Your task to perform on an android device: Open notification settings Image 0: 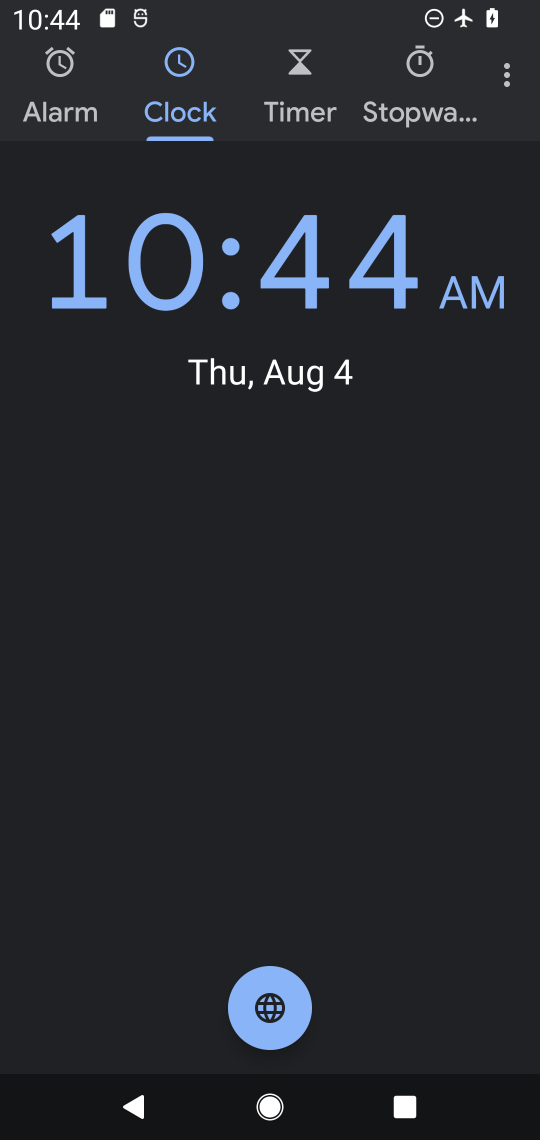
Step 0: press home button
Your task to perform on an android device: Open notification settings Image 1: 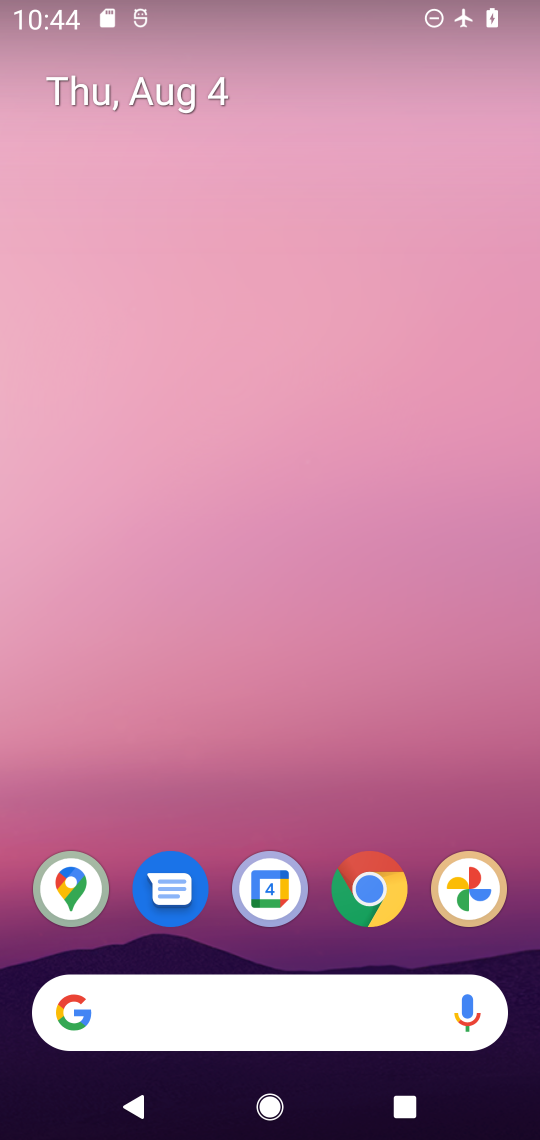
Step 1: drag from (363, 761) to (388, 176)
Your task to perform on an android device: Open notification settings Image 2: 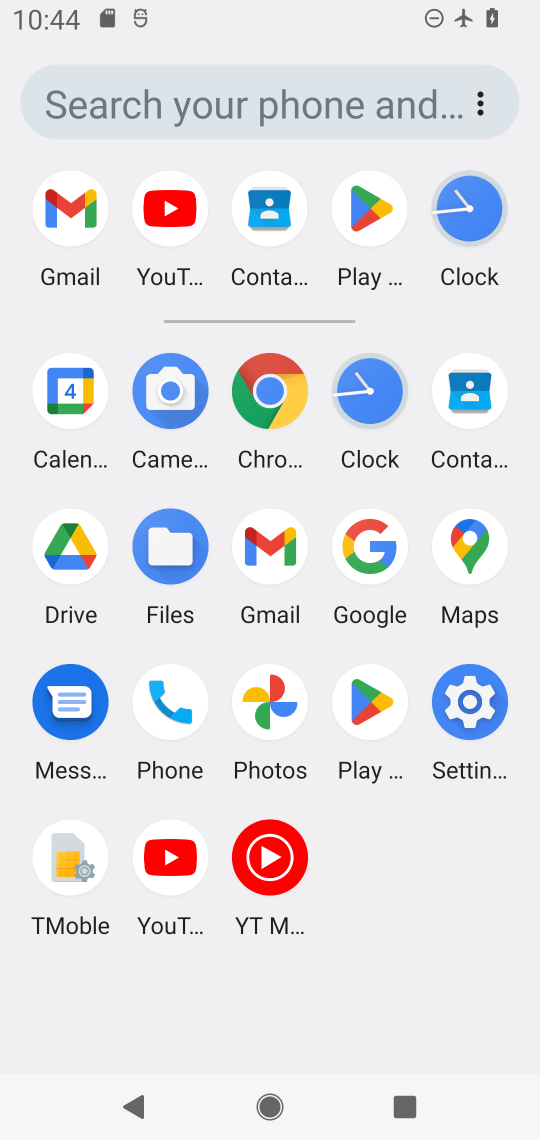
Step 2: click (486, 704)
Your task to perform on an android device: Open notification settings Image 3: 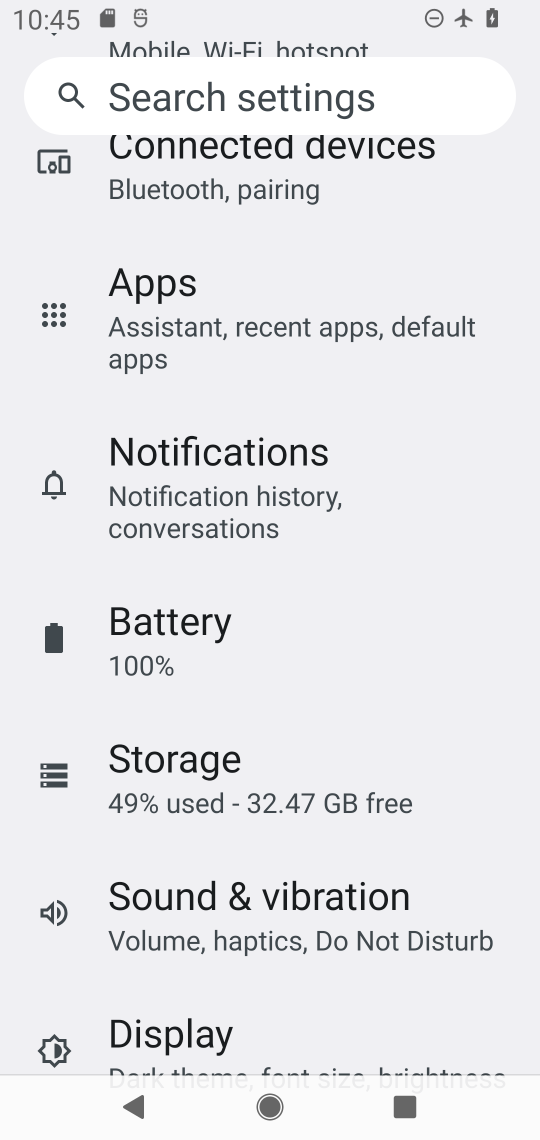
Step 3: drag from (446, 438) to (445, 575)
Your task to perform on an android device: Open notification settings Image 4: 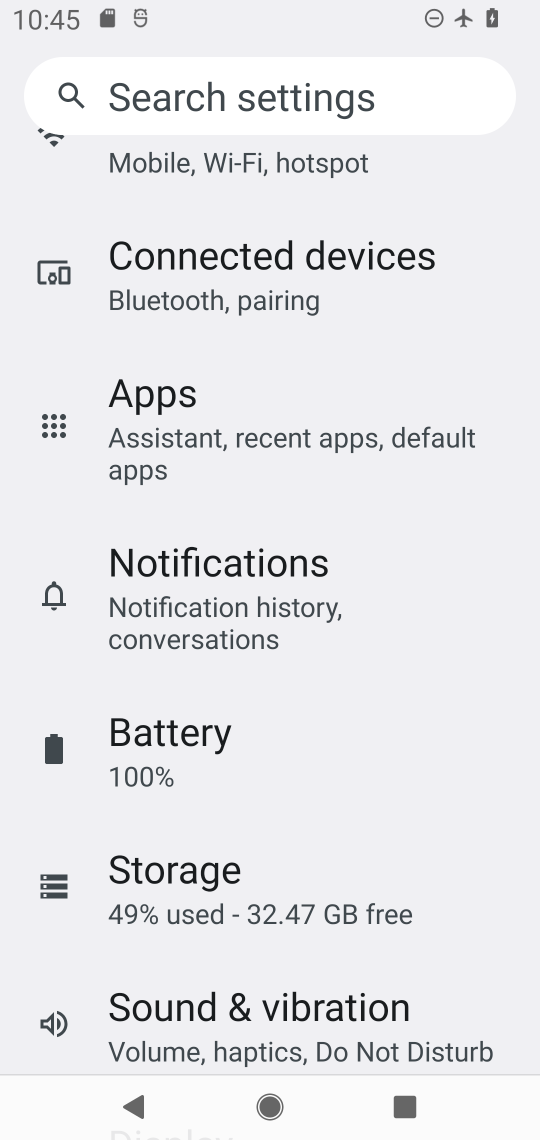
Step 4: drag from (443, 344) to (430, 515)
Your task to perform on an android device: Open notification settings Image 5: 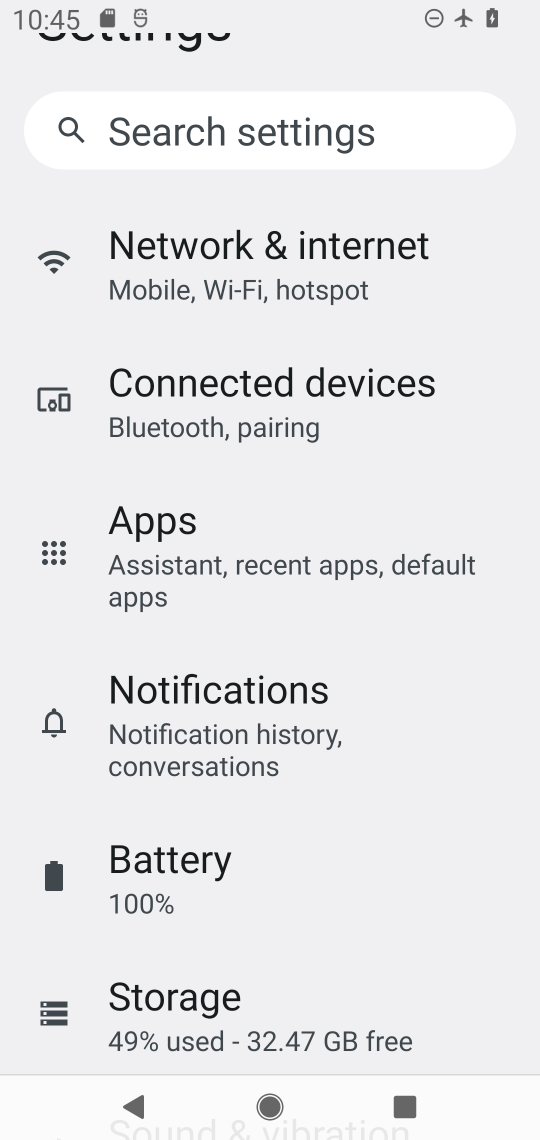
Step 5: click (318, 738)
Your task to perform on an android device: Open notification settings Image 6: 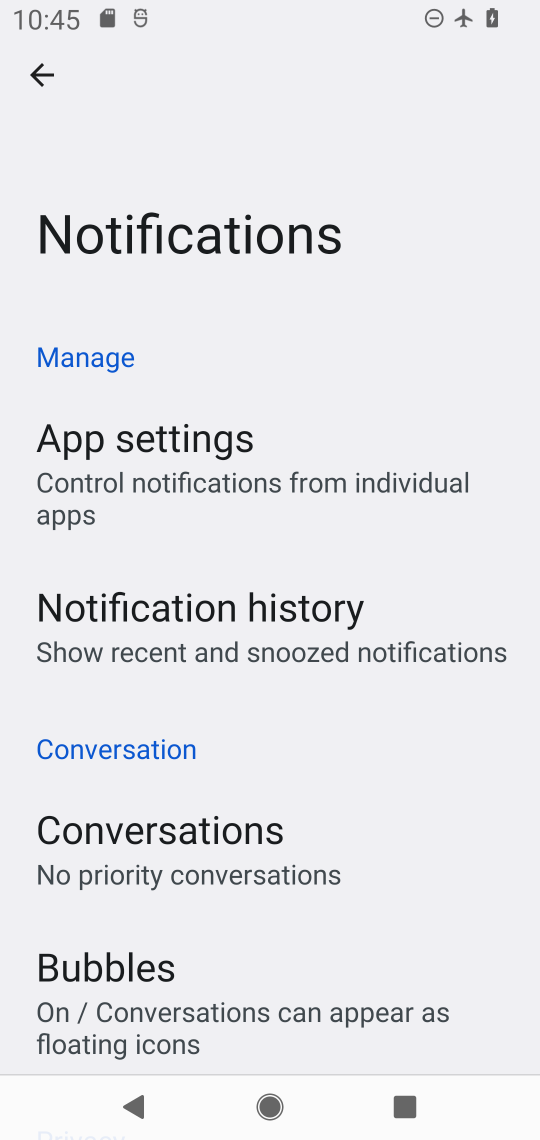
Step 6: task complete